Your task to perform on an android device: toggle notifications settings in the gmail app Image 0: 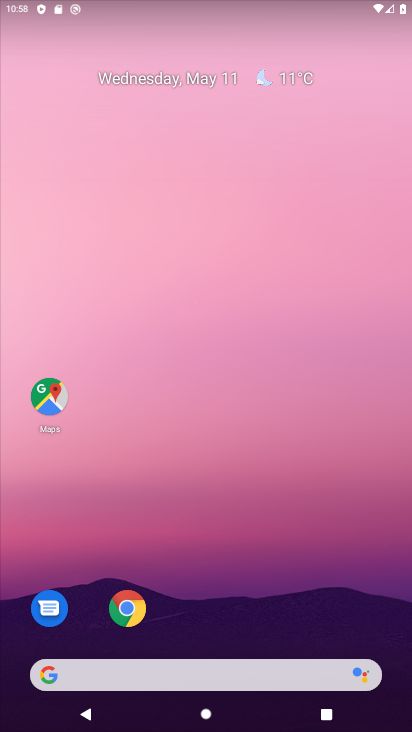
Step 0: drag from (155, 666) to (265, 94)
Your task to perform on an android device: toggle notifications settings in the gmail app Image 1: 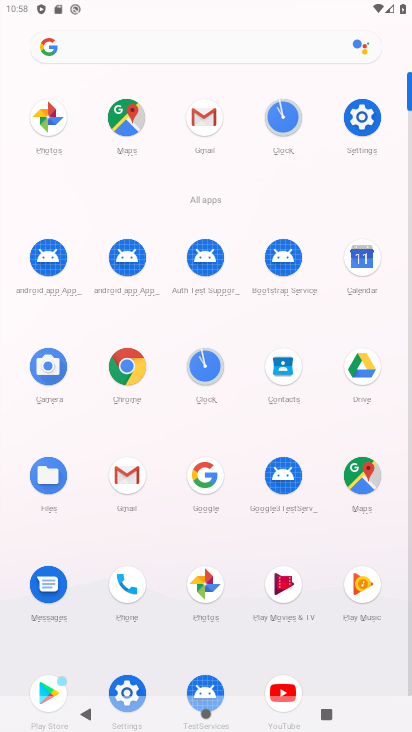
Step 1: click (122, 460)
Your task to perform on an android device: toggle notifications settings in the gmail app Image 2: 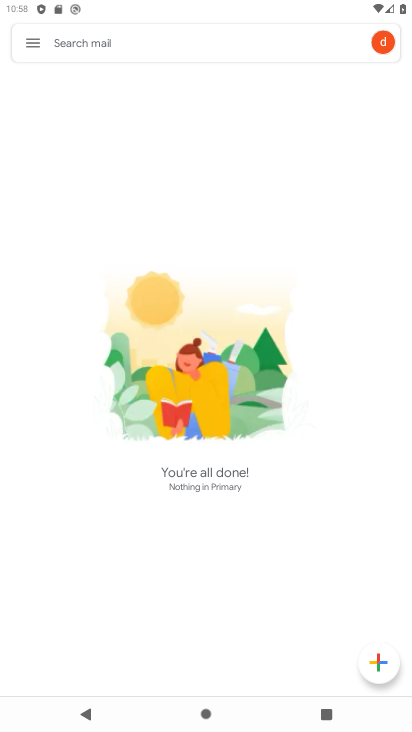
Step 2: click (39, 48)
Your task to perform on an android device: toggle notifications settings in the gmail app Image 3: 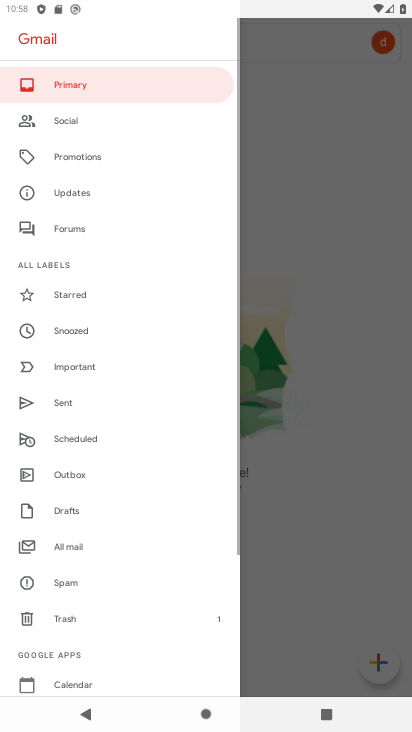
Step 3: drag from (73, 605) to (147, 202)
Your task to perform on an android device: toggle notifications settings in the gmail app Image 4: 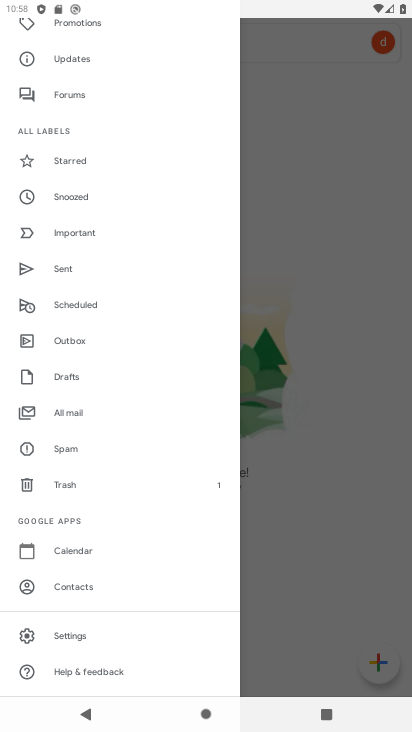
Step 4: click (77, 625)
Your task to perform on an android device: toggle notifications settings in the gmail app Image 5: 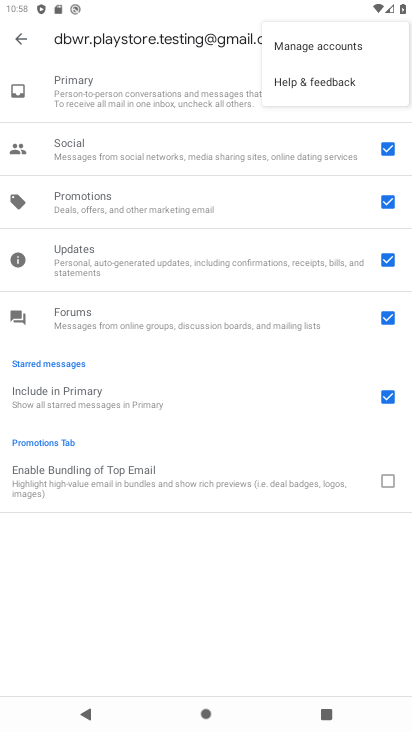
Step 5: click (27, 43)
Your task to perform on an android device: toggle notifications settings in the gmail app Image 6: 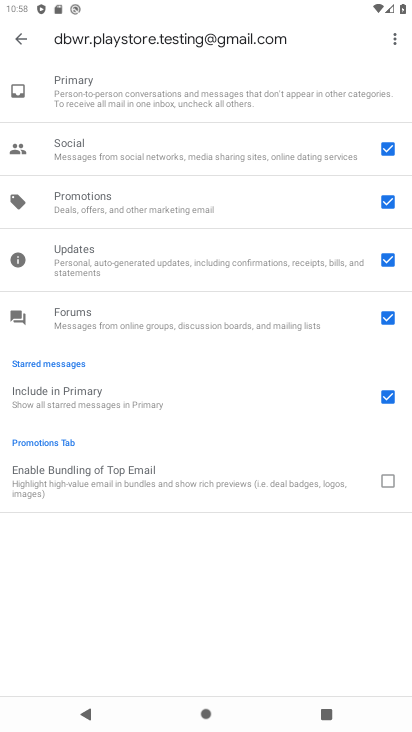
Step 6: click (27, 43)
Your task to perform on an android device: toggle notifications settings in the gmail app Image 7: 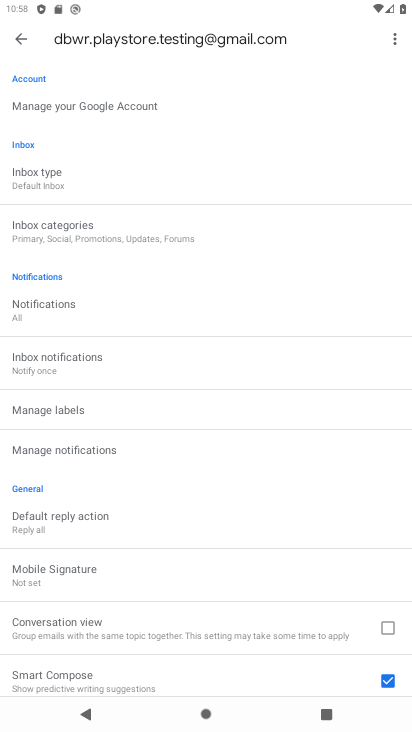
Step 7: click (137, 452)
Your task to perform on an android device: toggle notifications settings in the gmail app Image 8: 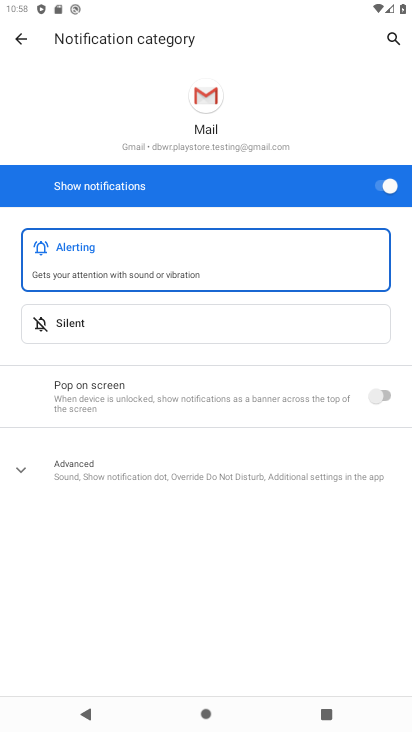
Step 8: click (375, 187)
Your task to perform on an android device: toggle notifications settings in the gmail app Image 9: 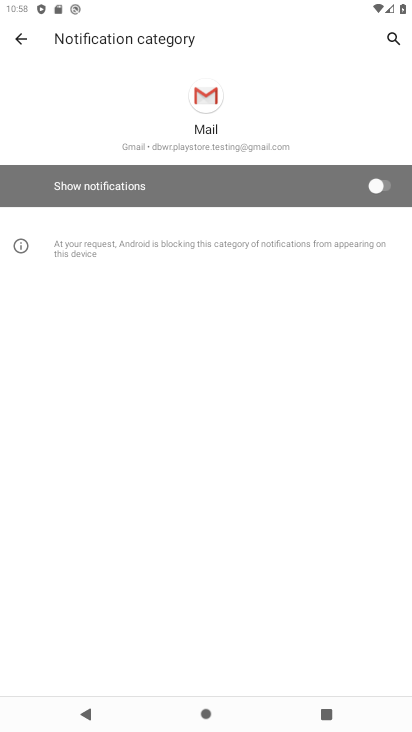
Step 9: task complete